Your task to perform on an android device: Go to Wikipedia Image 0: 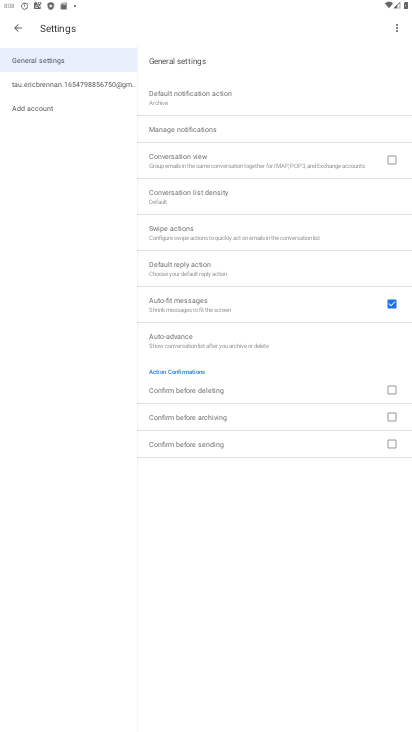
Step 0: drag from (207, 581) to (288, 79)
Your task to perform on an android device: Go to Wikipedia Image 1: 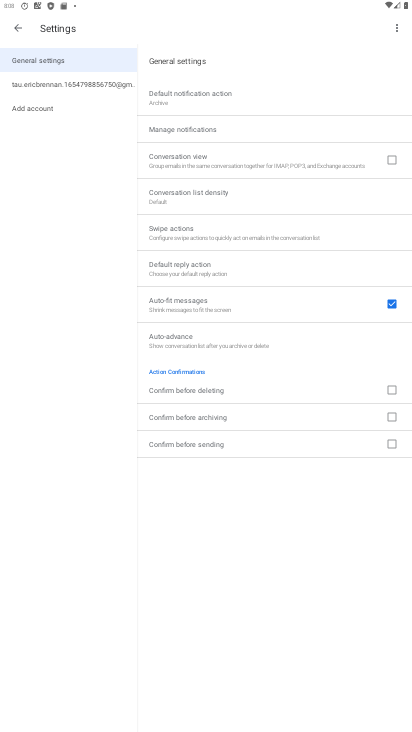
Step 1: drag from (215, 345) to (211, 251)
Your task to perform on an android device: Go to Wikipedia Image 2: 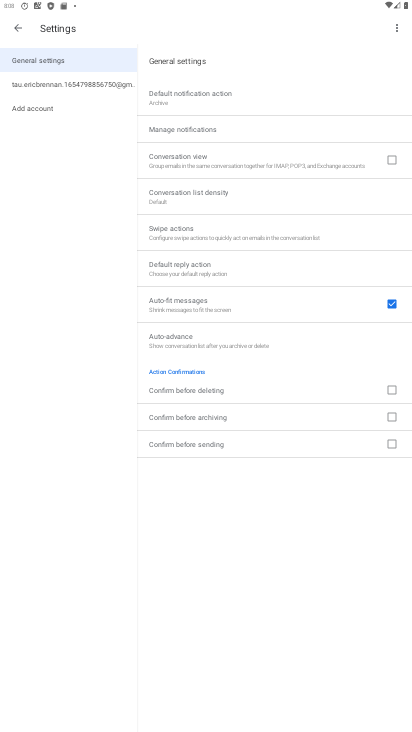
Step 2: drag from (175, 571) to (250, 47)
Your task to perform on an android device: Go to Wikipedia Image 3: 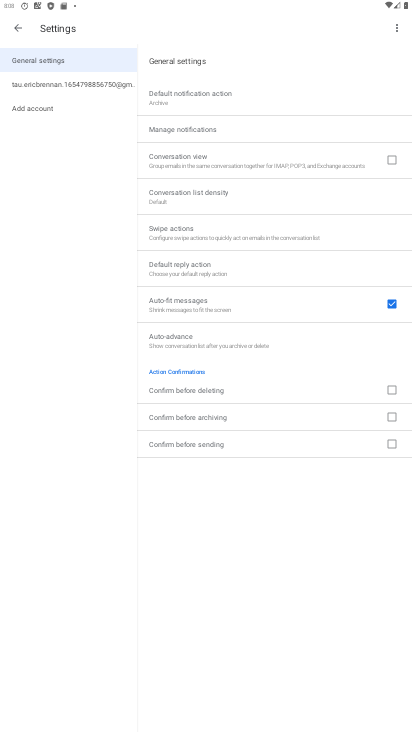
Step 3: drag from (206, 454) to (179, 303)
Your task to perform on an android device: Go to Wikipedia Image 4: 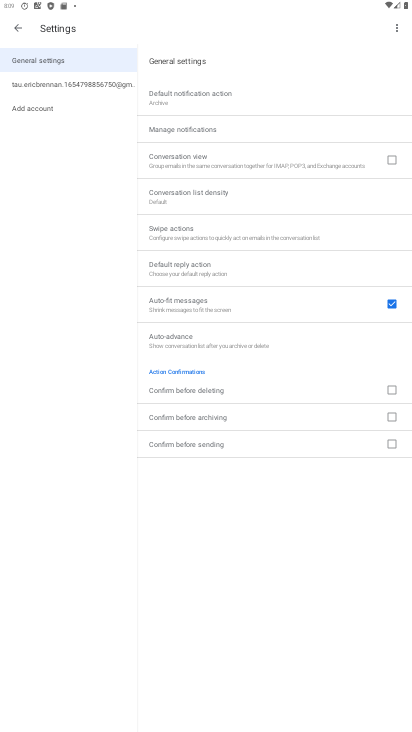
Step 4: drag from (269, 652) to (276, 591)
Your task to perform on an android device: Go to Wikipedia Image 5: 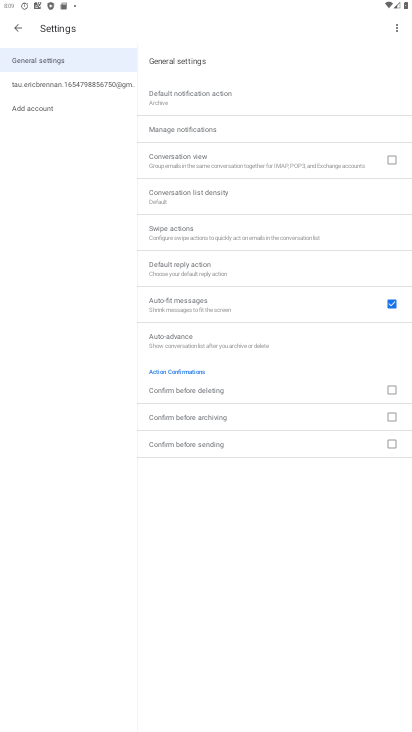
Step 5: click (60, 78)
Your task to perform on an android device: Go to Wikipedia Image 6: 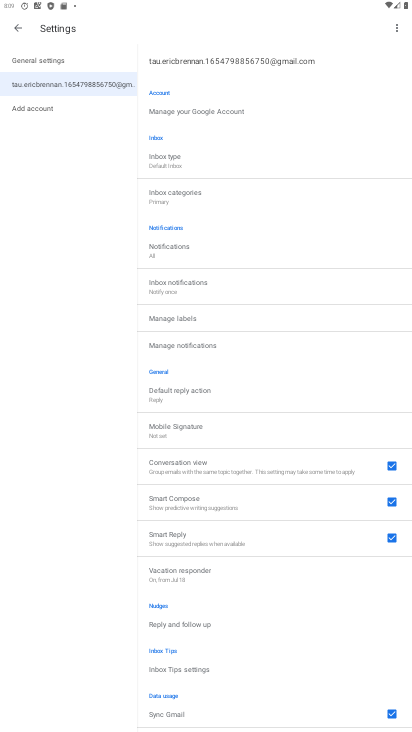
Step 6: press home button
Your task to perform on an android device: Go to Wikipedia Image 7: 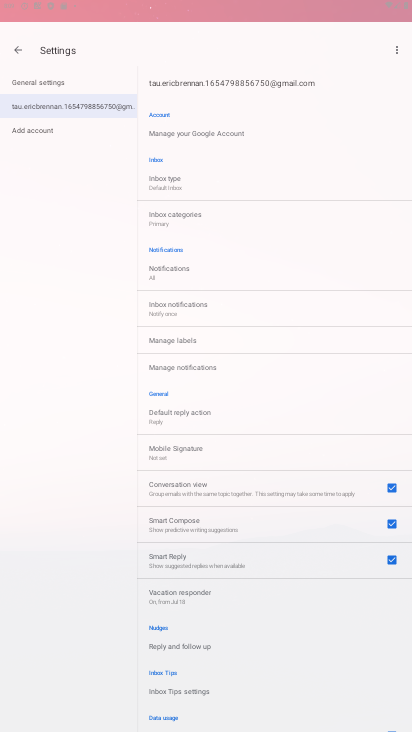
Step 7: drag from (220, 615) to (307, 35)
Your task to perform on an android device: Go to Wikipedia Image 8: 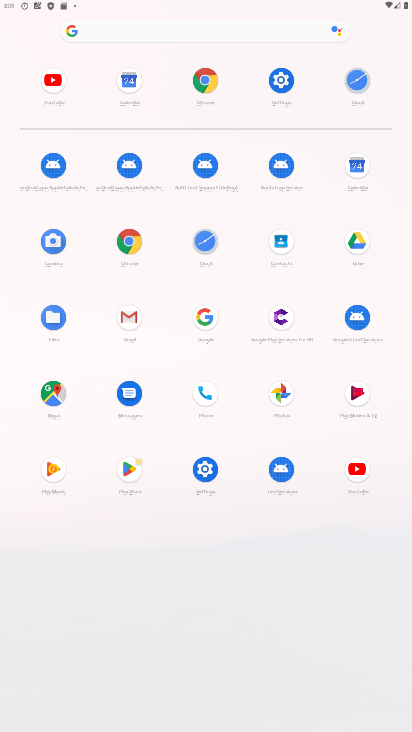
Step 8: click (145, 25)
Your task to perform on an android device: Go to Wikipedia Image 9: 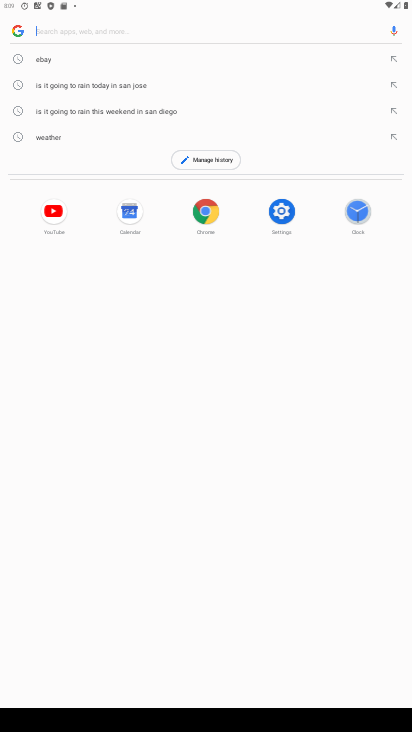
Step 9: type "Wikipedia"
Your task to perform on an android device: Go to Wikipedia Image 10: 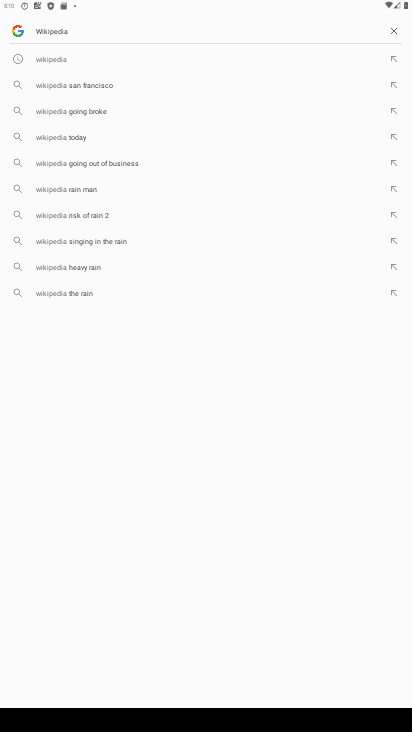
Step 10: click (52, 63)
Your task to perform on an android device: Go to Wikipedia Image 11: 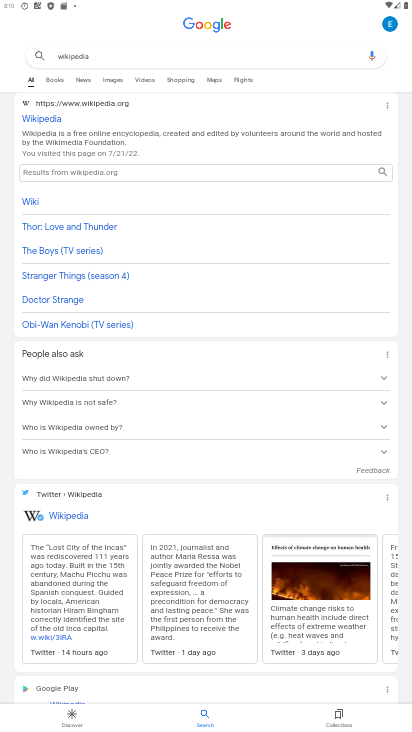
Step 11: drag from (148, 576) to (226, 107)
Your task to perform on an android device: Go to Wikipedia Image 12: 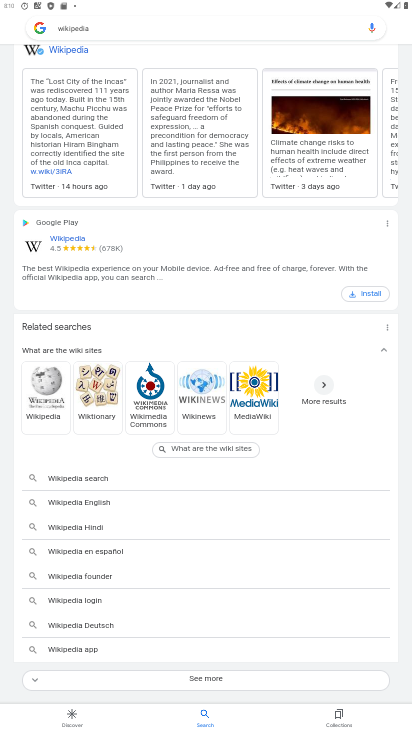
Step 12: drag from (196, 543) to (216, 217)
Your task to perform on an android device: Go to Wikipedia Image 13: 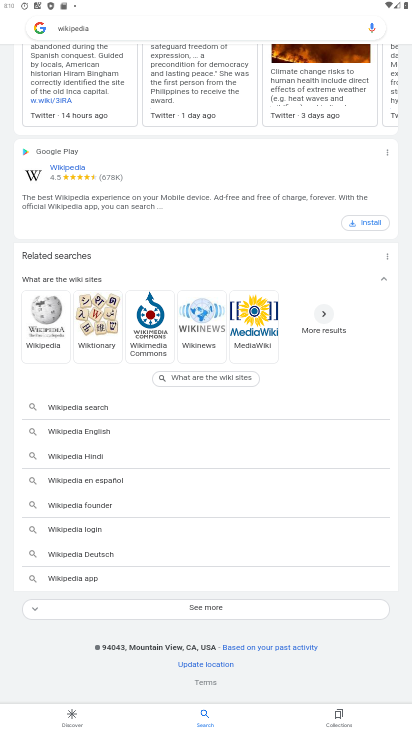
Step 13: drag from (201, 203) to (235, 730)
Your task to perform on an android device: Go to Wikipedia Image 14: 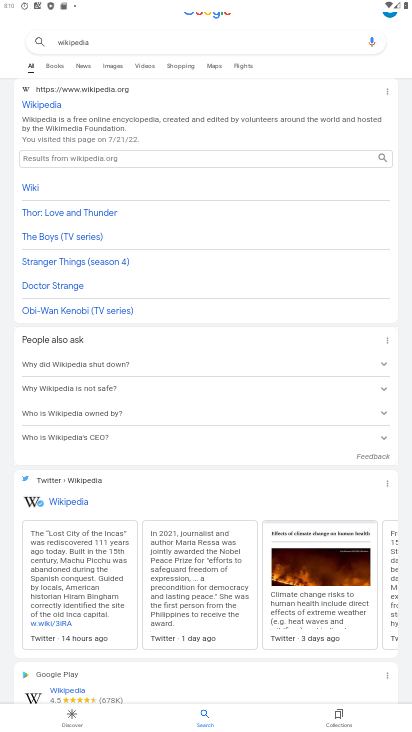
Step 14: drag from (94, 179) to (146, 725)
Your task to perform on an android device: Go to Wikipedia Image 15: 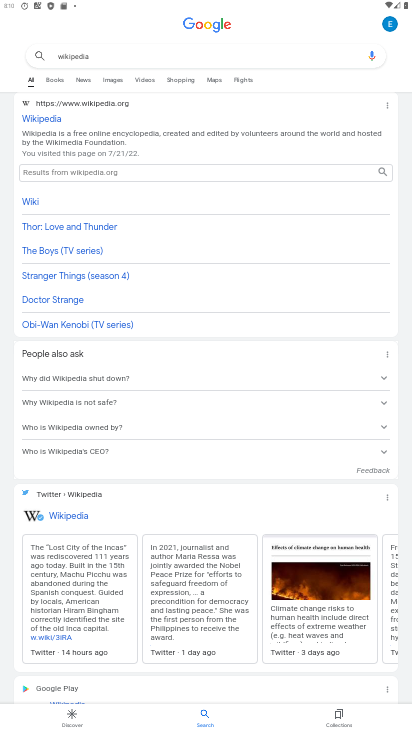
Step 15: drag from (217, 231) to (288, 723)
Your task to perform on an android device: Go to Wikipedia Image 16: 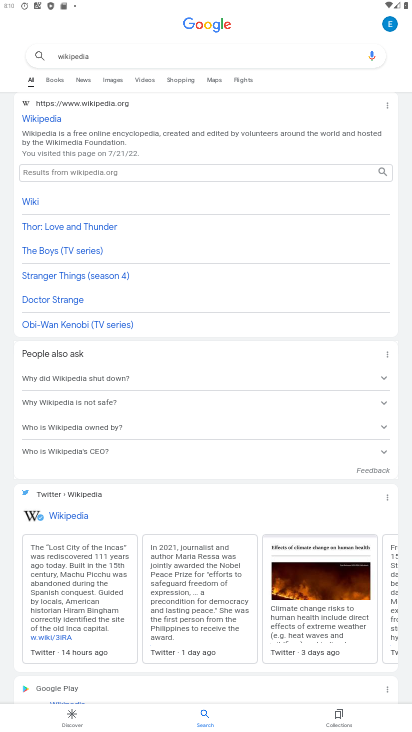
Step 16: drag from (153, 182) to (364, 527)
Your task to perform on an android device: Go to Wikipedia Image 17: 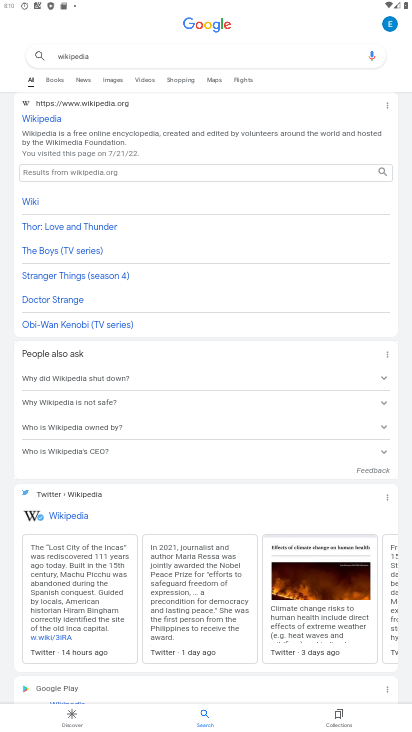
Step 17: click (38, 123)
Your task to perform on an android device: Go to Wikipedia Image 18: 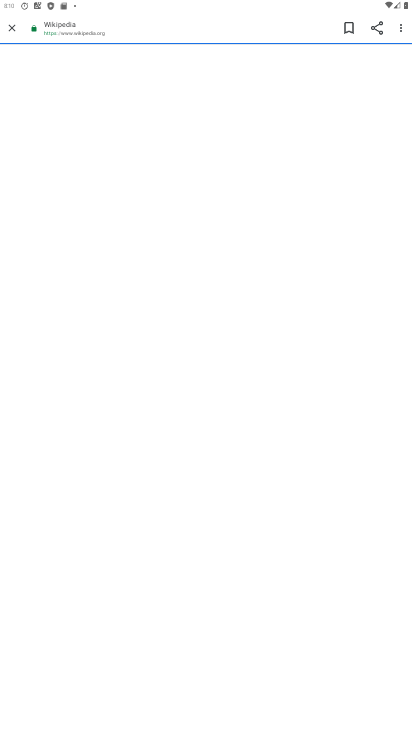
Step 18: drag from (266, 460) to (248, 188)
Your task to perform on an android device: Go to Wikipedia Image 19: 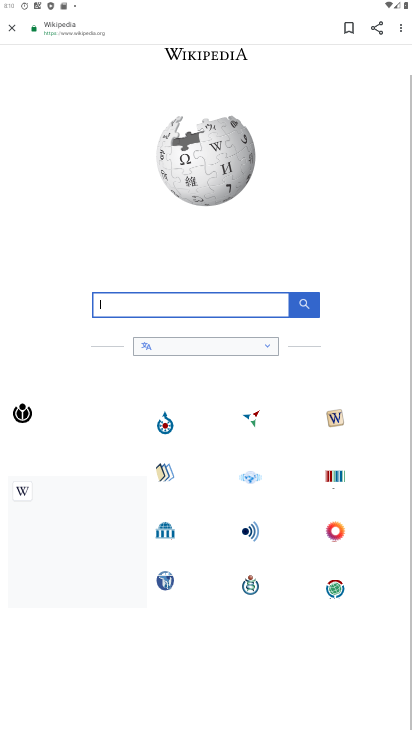
Step 19: drag from (220, 365) to (208, 156)
Your task to perform on an android device: Go to Wikipedia Image 20: 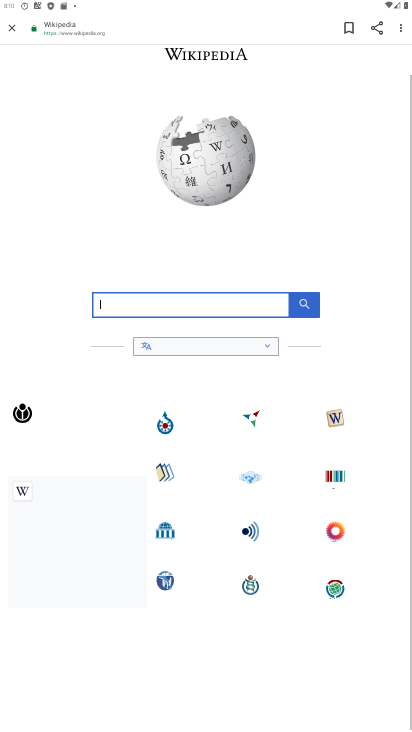
Step 20: click (159, 138)
Your task to perform on an android device: Go to Wikipedia Image 21: 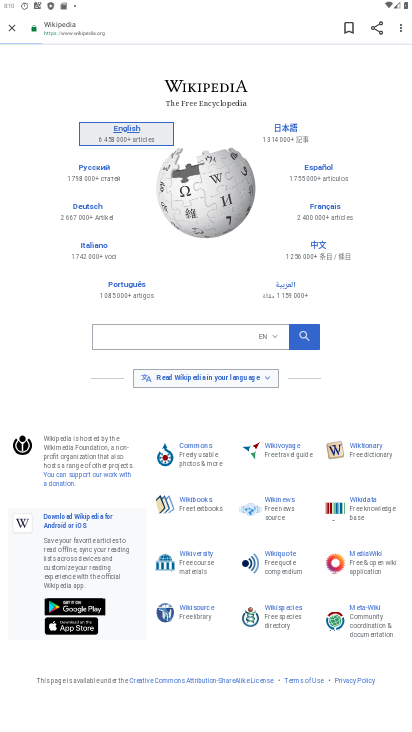
Step 21: task complete